Your task to perform on an android device: turn off airplane mode Image 0: 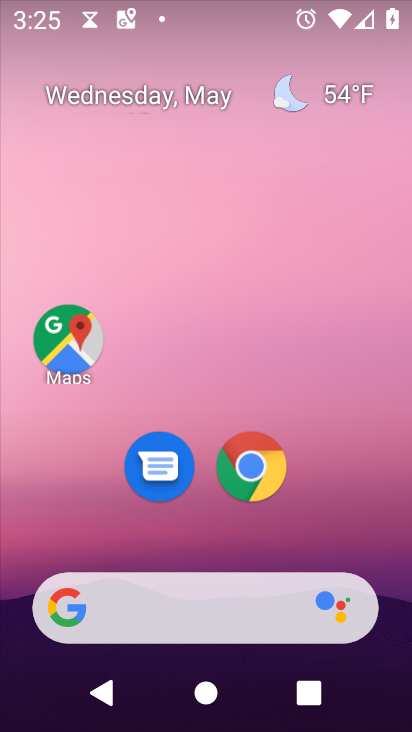
Step 0: drag from (331, 20) to (300, 440)
Your task to perform on an android device: turn off airplane mode Image 1: 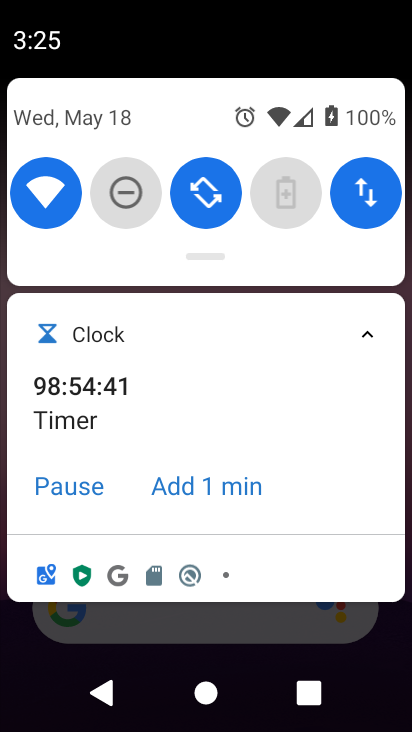
Step 1: task complete